Your task to perform on an android device: Show me popular videos on Youtube Image 0: 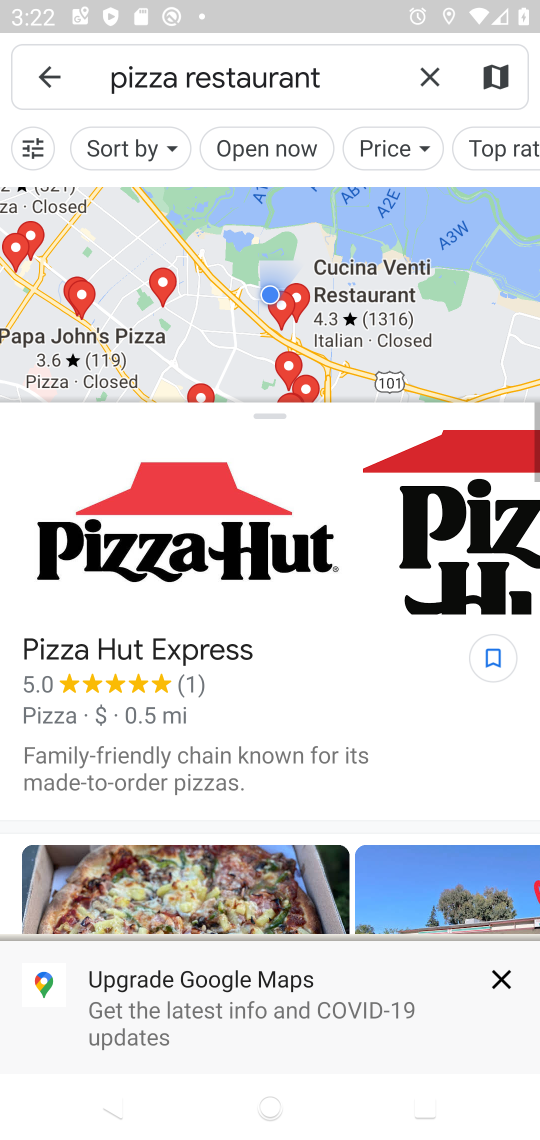
Step 0: press back button
Your task to perform on an android device: Show me popular videos on Youtube Image 1: 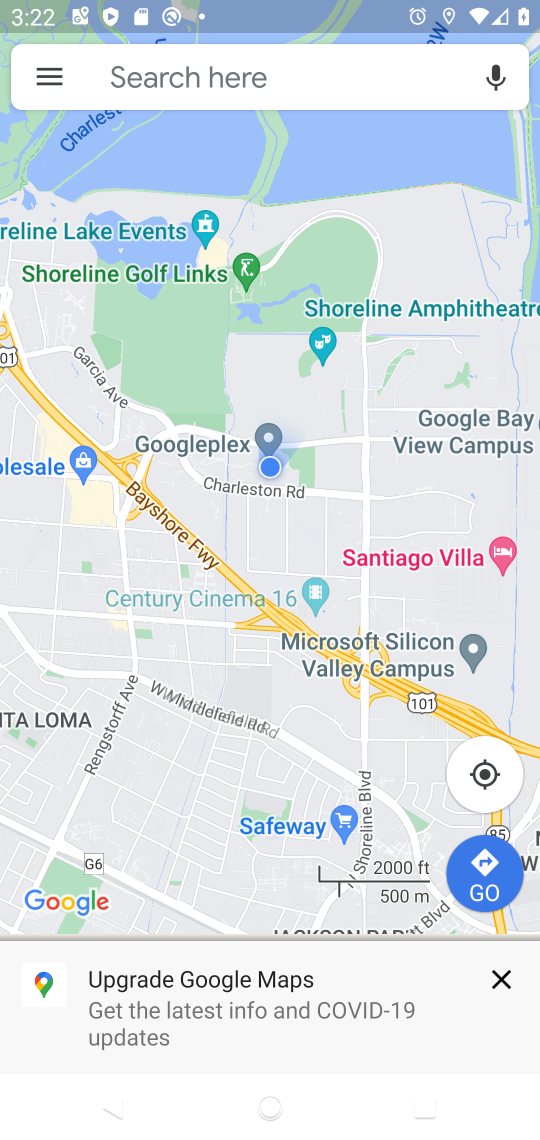
Step 1: press back button
Your task to perform on an android device: Show me popular videos on Youtube Image 2: 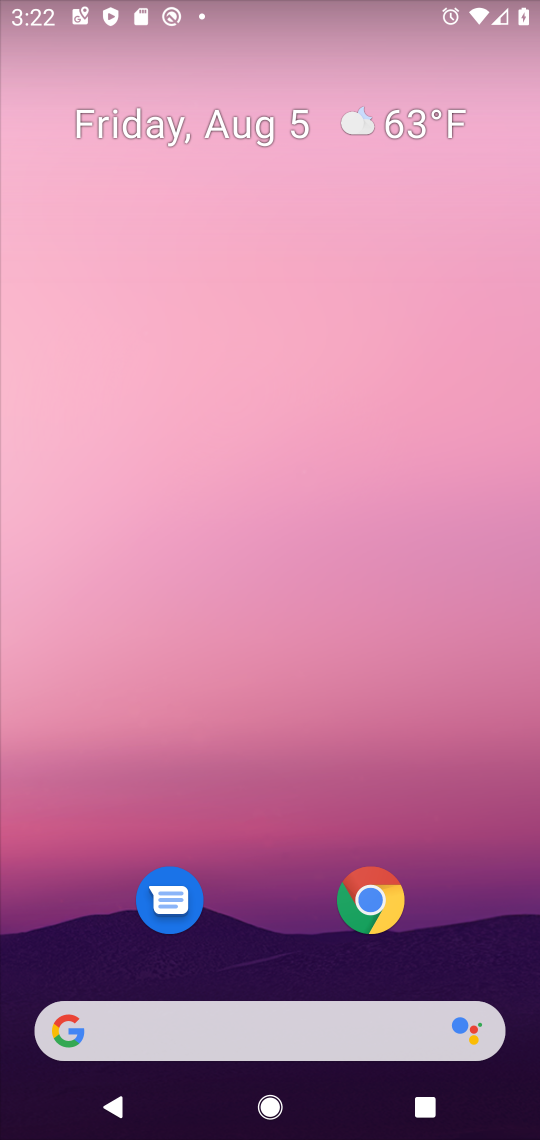
Step 2: drag from (266, 921) to (363, 70)
Your task to perform on an android device: Show me popular videos on Youtube Image 3: 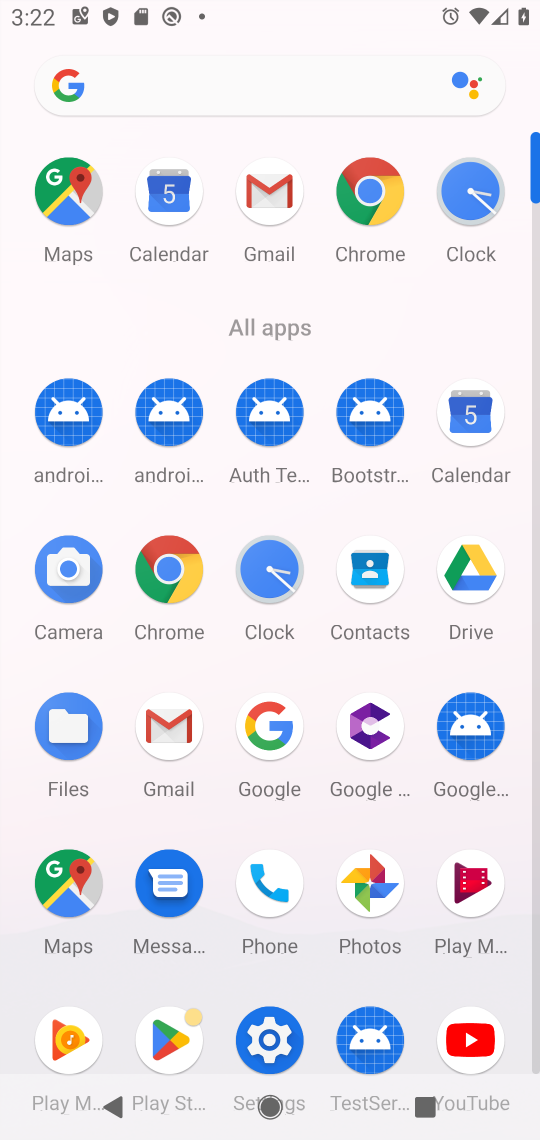
Step 3: click (464, 1047)
Your task to perform on an android device: Show me popular videos on Youtube Image 4: 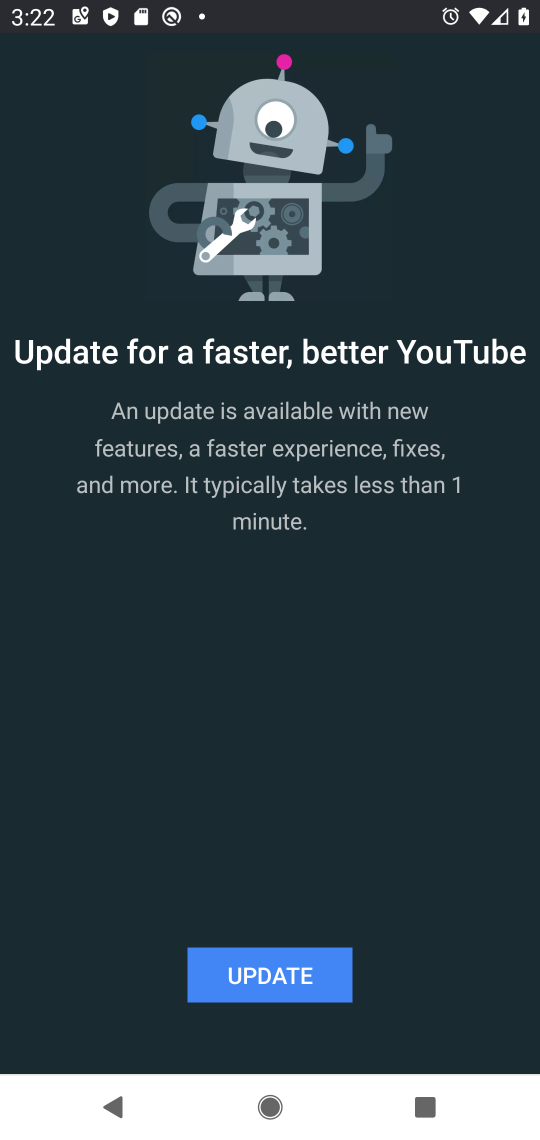
Step 4: task complete